Your task to perform on an android device: Open CNN.com Image 0: 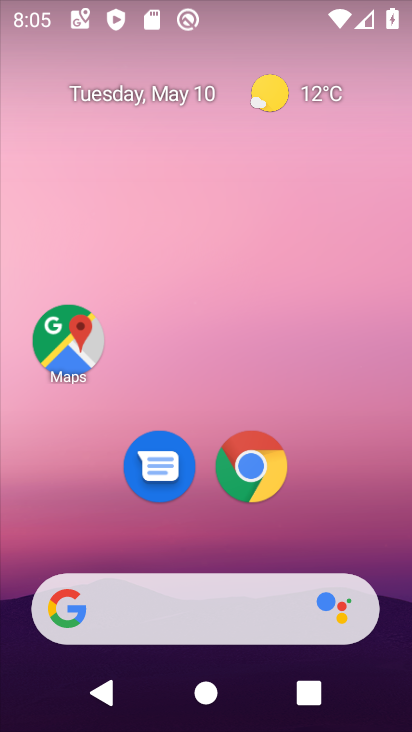
Step 0: click (255, 30)
Your task to perform on an android device: Open CNN.com Image 1: 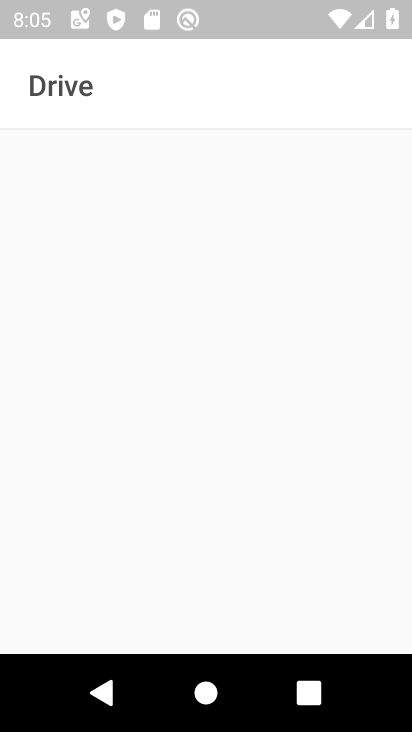
Step 1: press home button
Your task to perform on an android device: Open CNN.com Image 2: 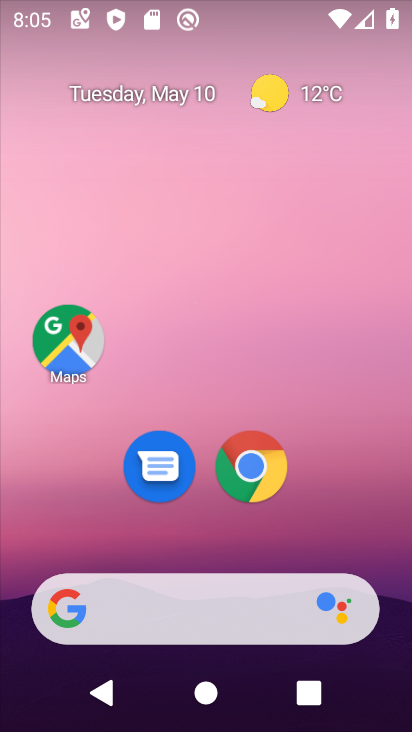
Step 2: click (246, 463)
Your task to perform on an android device: Open CNN.com Image 3: 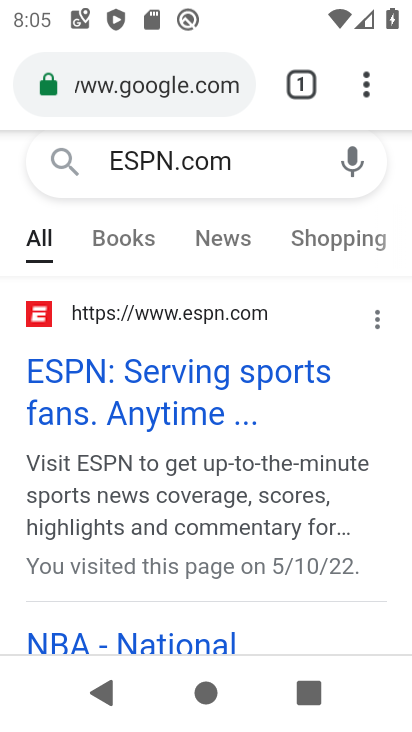
Step 3: click (199, 100)
Your task to perform on an android device: Open CNN.com Image 4: 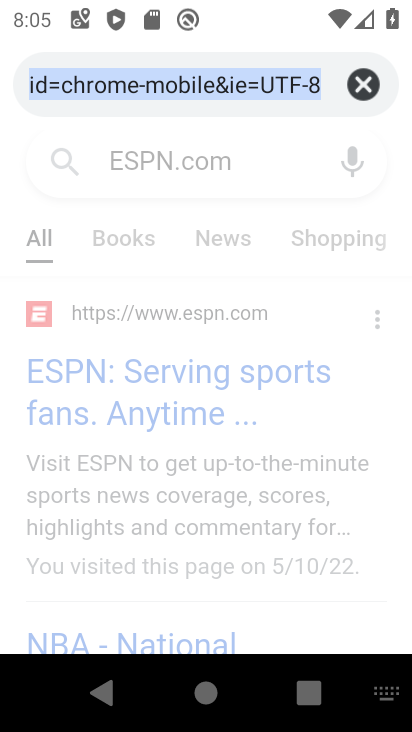
Step 4: type "CNN.com"
Your task to perform on an android device: Open CNN.com Image 5: 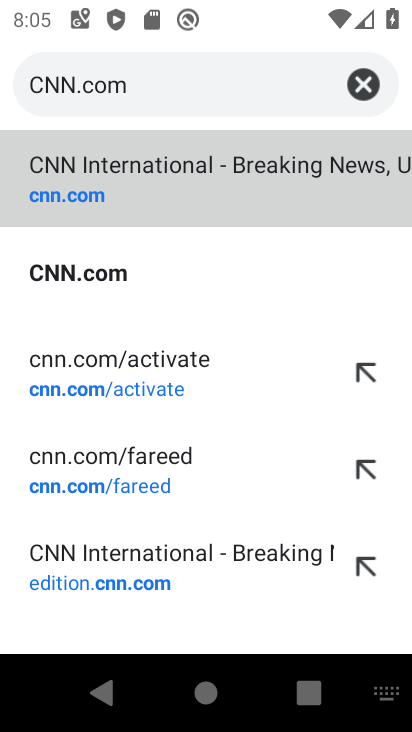
Step 5: click (204, 260)
Your task to perform on an android device: Open CNN.com Image 6: 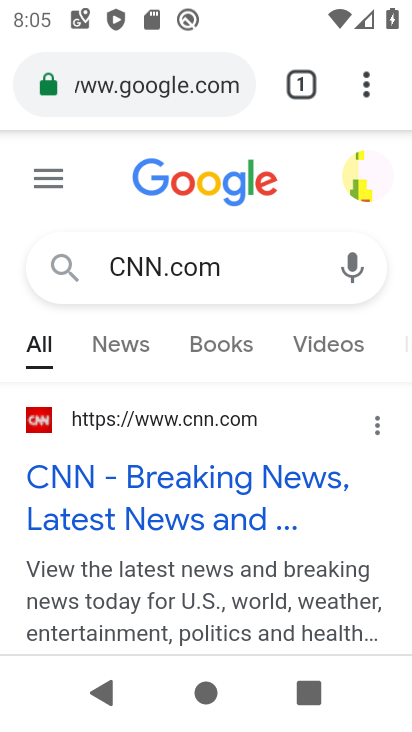
Step 6: task complete